Your task to perform on an android device: change alarm snooze length Image 0: 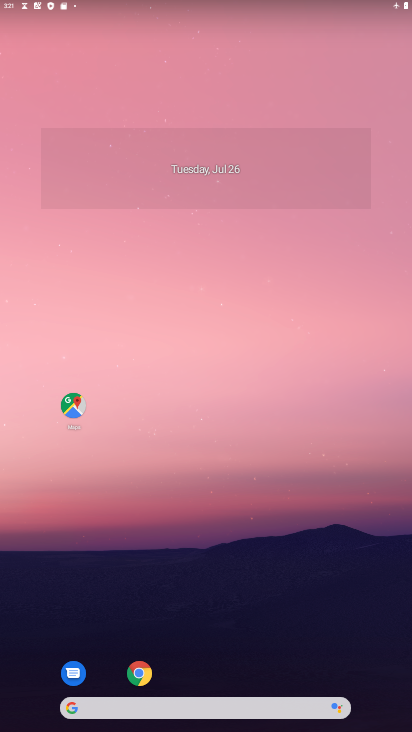
Step 0: drag from (192, 706) to (411, 24)
Your task to perform on an android device: change alarm snooze length Image 1: 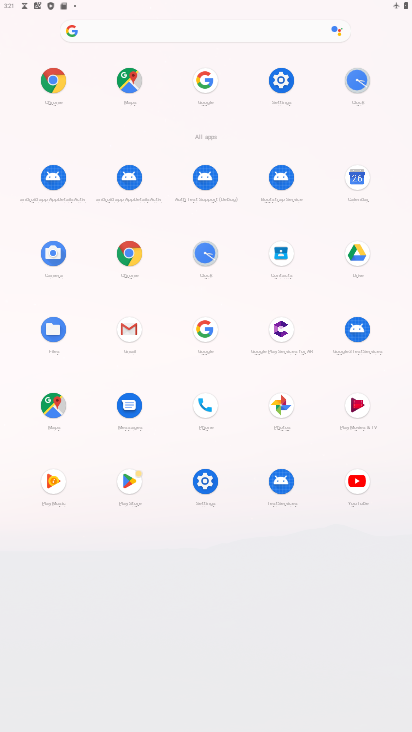
Step 1: click (355, 79)
Your task to perform on an android device: change alarm snooze length Image 2: 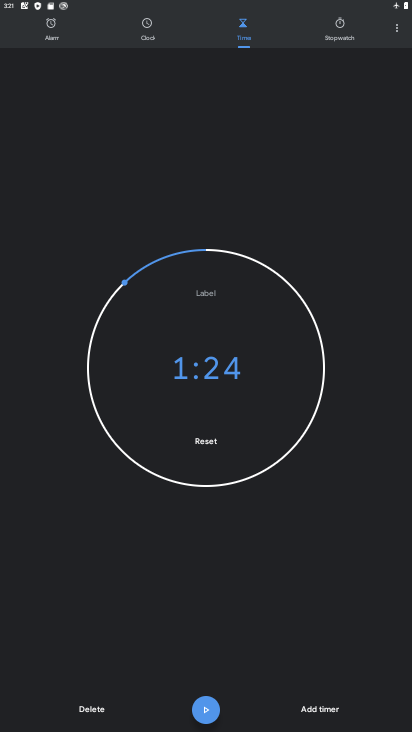
Step 2: click (399, 27)
Your task to perform on an android device: change alarm snooze length Image 3: 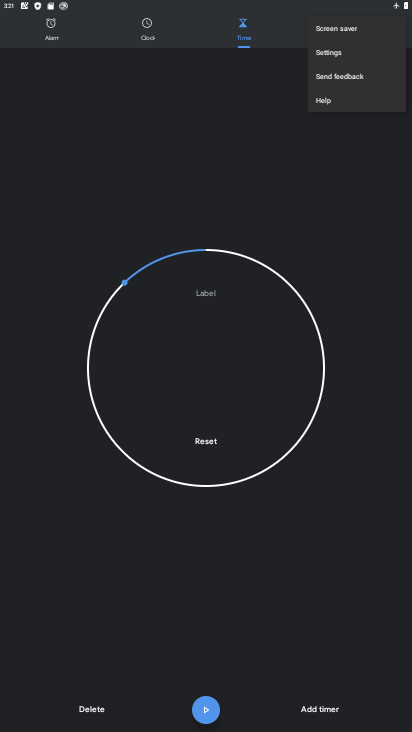
Step 3: click (336, 53)
Your task to perform on an android device: change alarm snooze length Image 4: 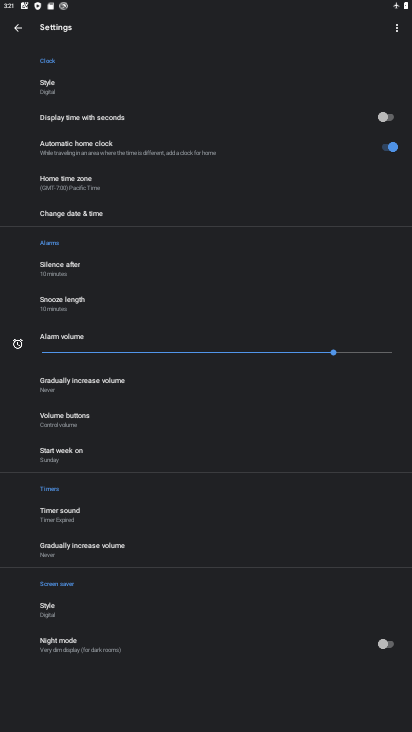
Step 4: click (72, 301)
Your task to perform on an android device: change alarm snooze length Image 5: 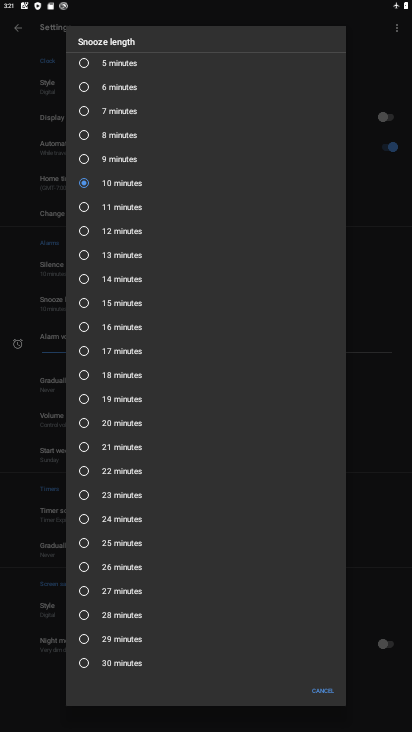
Step 5: drag from (134, 621) to (135, 448)
Your task to perform on an android device: change alarm snooze length Image 6: 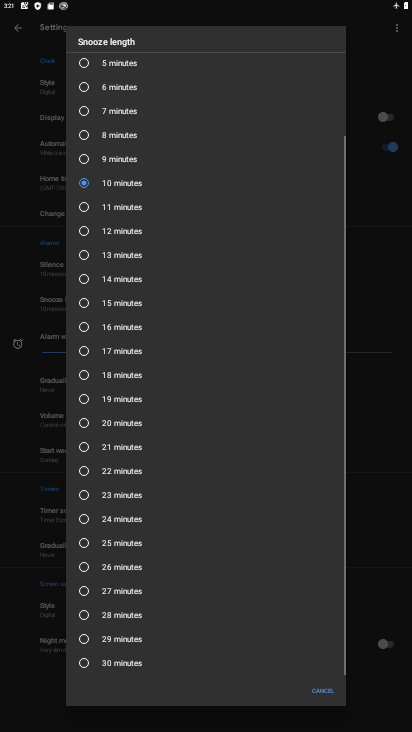
Step 6: drag from (136, 301) to (153, 582)
Your task to perform on an android device: change alarm snooze length Image 7: 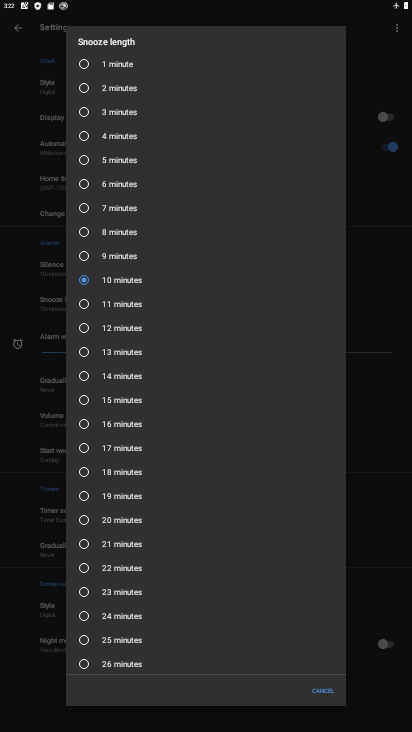
Step 7: drag from (151, 298) to (156, 567)
Your task to perform on an android device: change alarm snooze length Image 8: 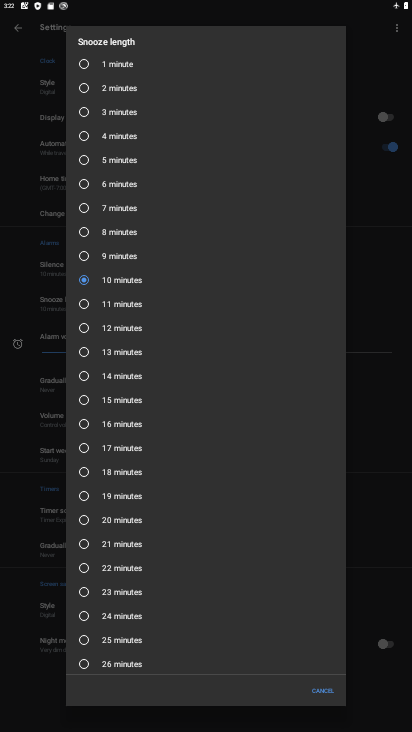
Step 8: click (86, 113)
Your task to perform on an android device: change alarm snooze length Image 9: 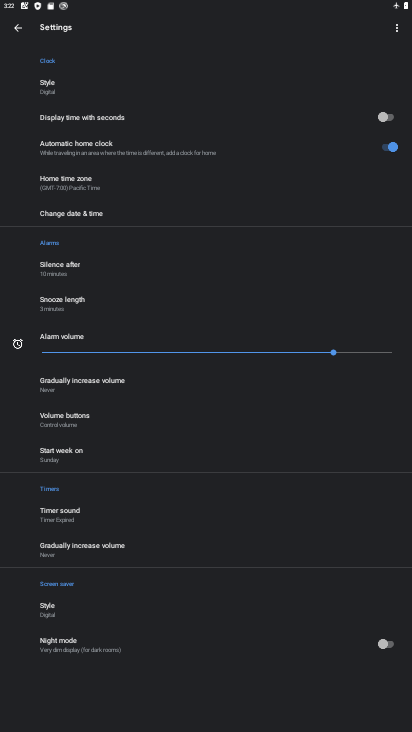
Step 9: task complete